Your task to perform on an android device: What's the news about the US dollar exchange rate? Image 0: 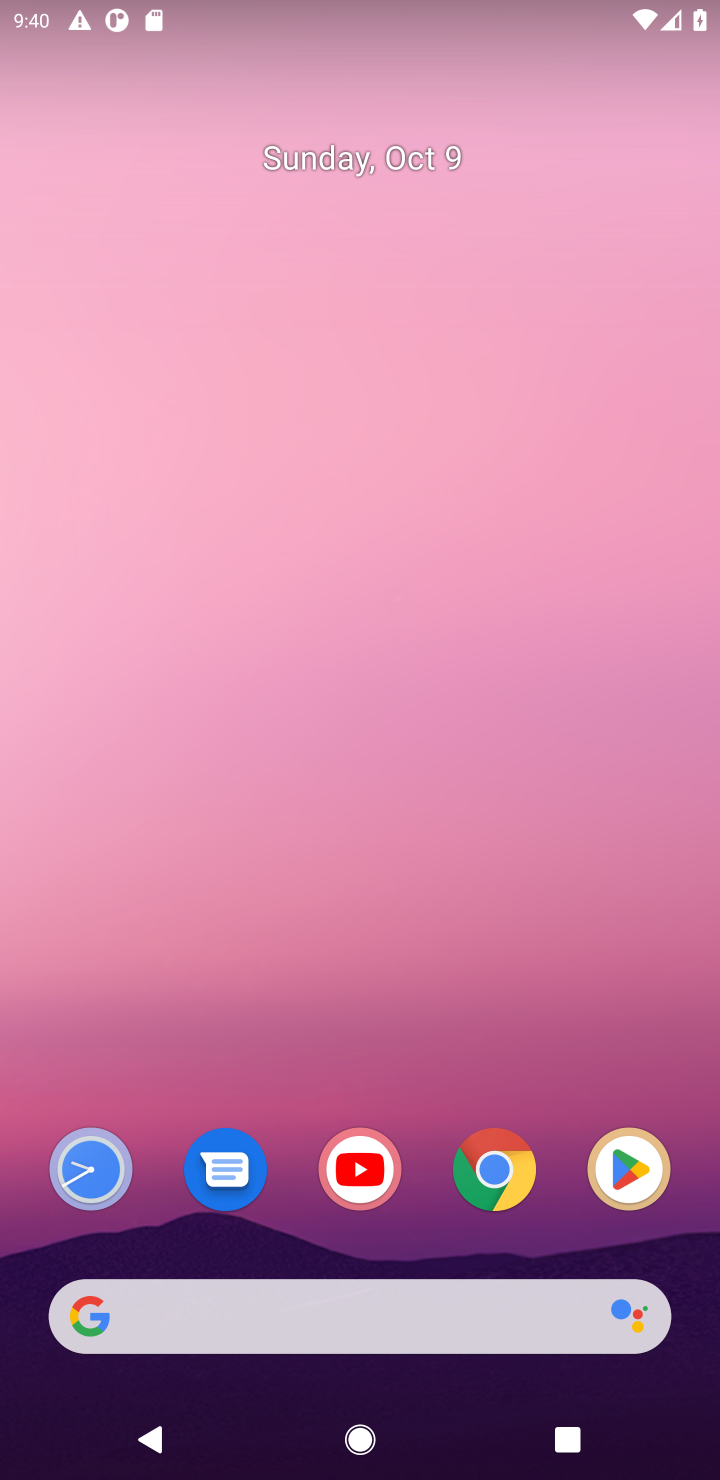
Step 0: click (529, 12)
Your task to perform on an android device: What's the news about the US dollar exchange rate? Image 1: 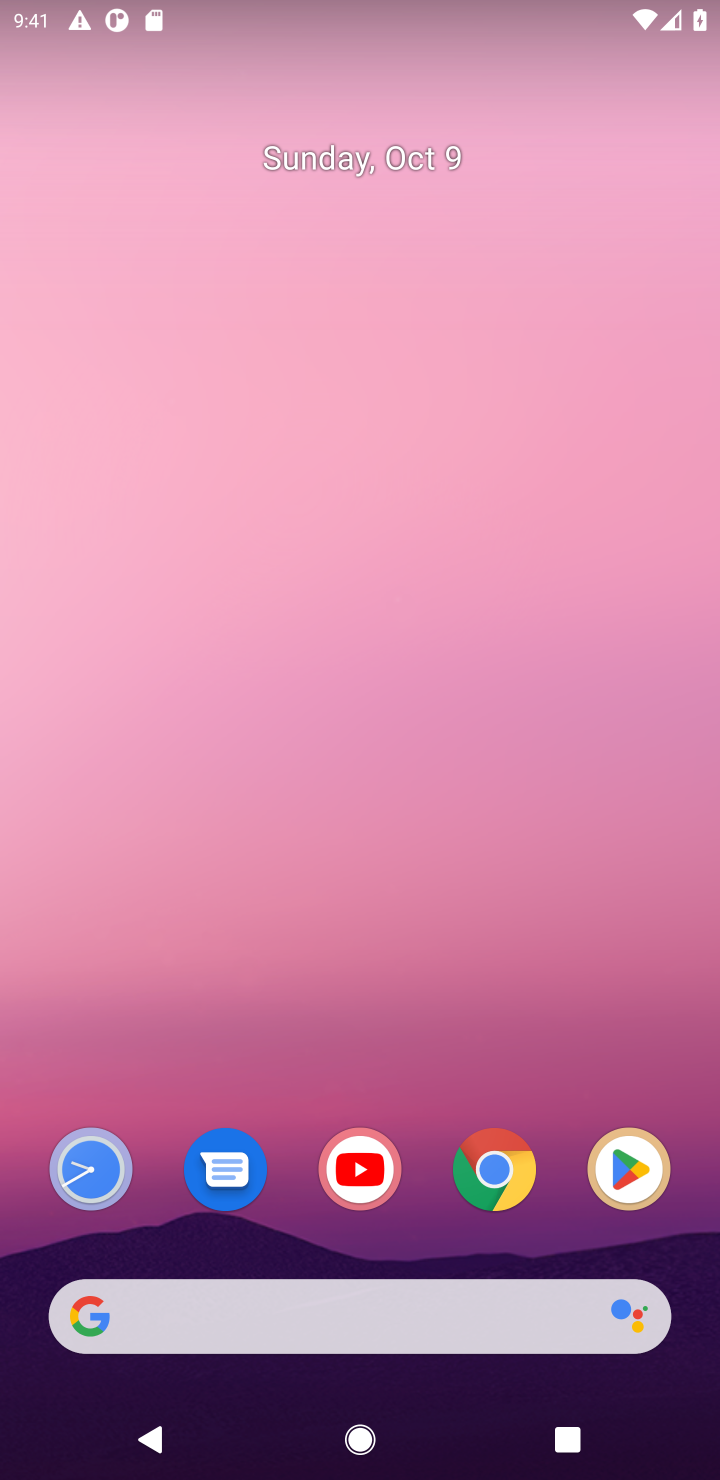
Step 1: click (280, 1310)
Your task to perform on an android device: What's the news about the US dollar exchange rate? Image 2: 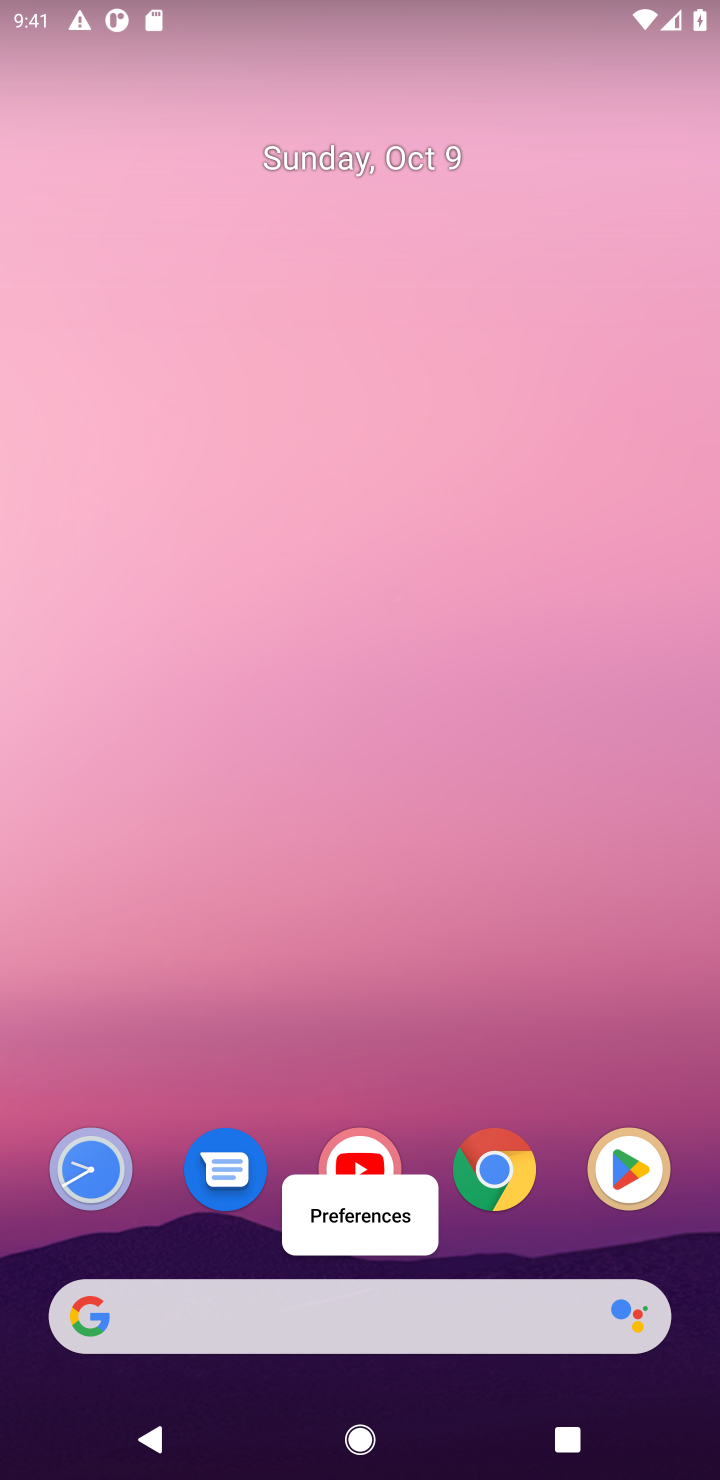
Step 2: click (270, 1325)
Your task to perform on an android device: What's the news about the US dollar exchange rate? Image 3: 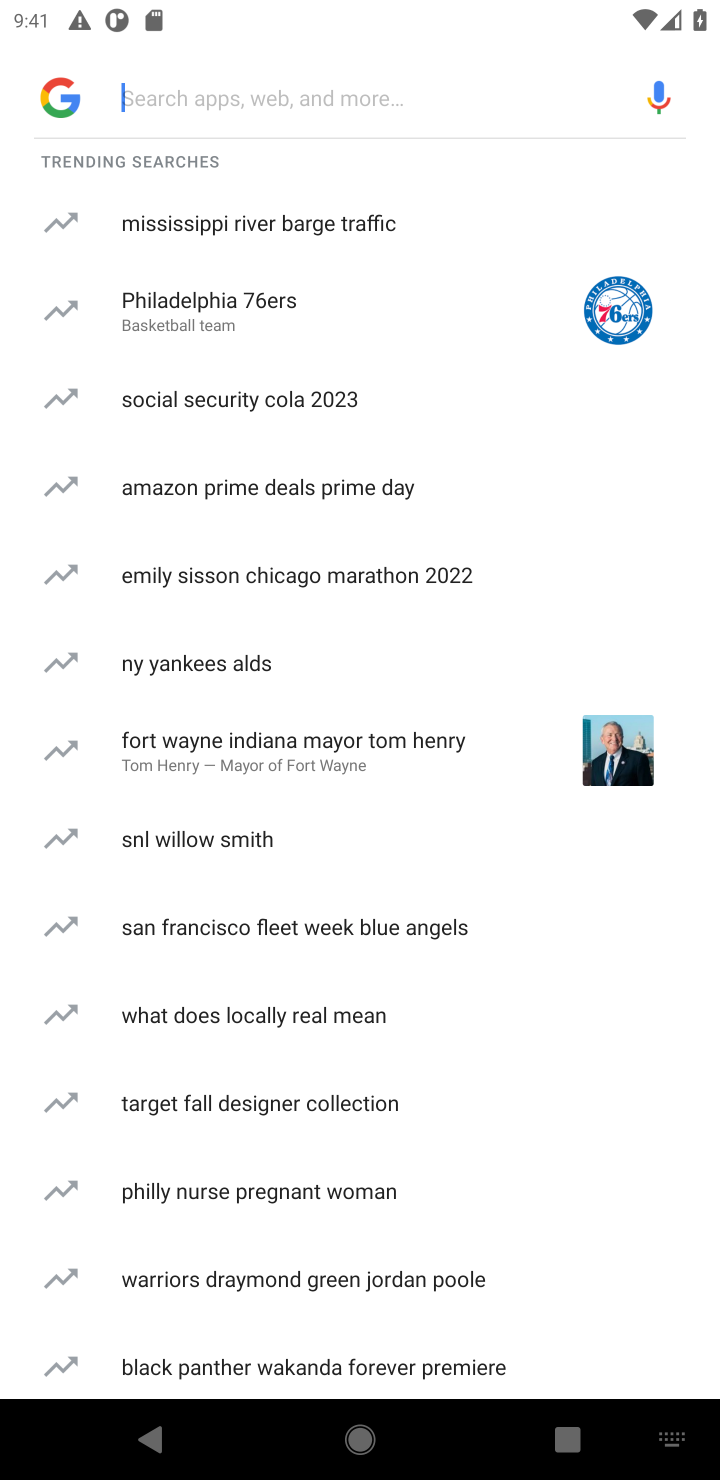
Step 3: click (283, 117)
Your task to perform on an android device: What's the news about the US dollar exchange rate? Image 4: 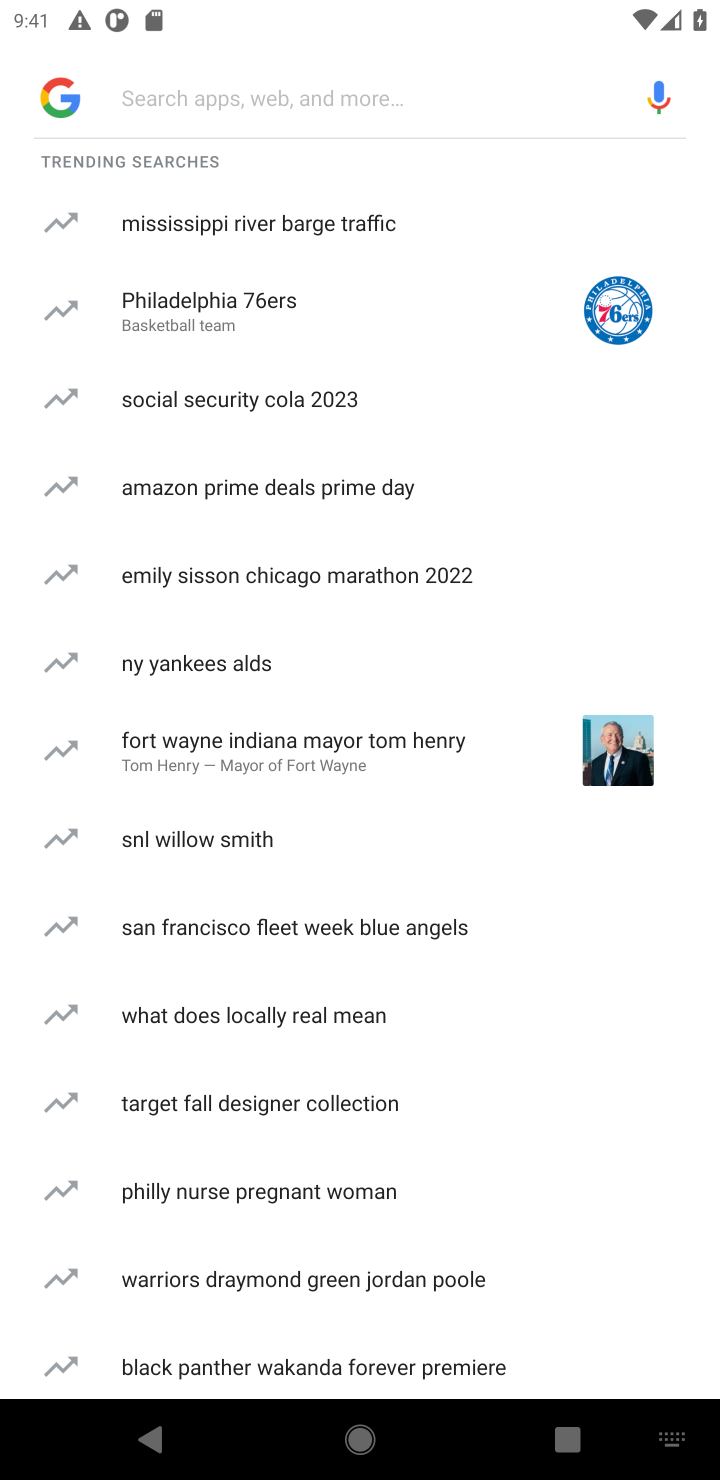
Step 4: type "What's the news about the US dollar exchange rate"
Your task to perform on an android device: What's the news about the US dollar exchange rate? Image 5: 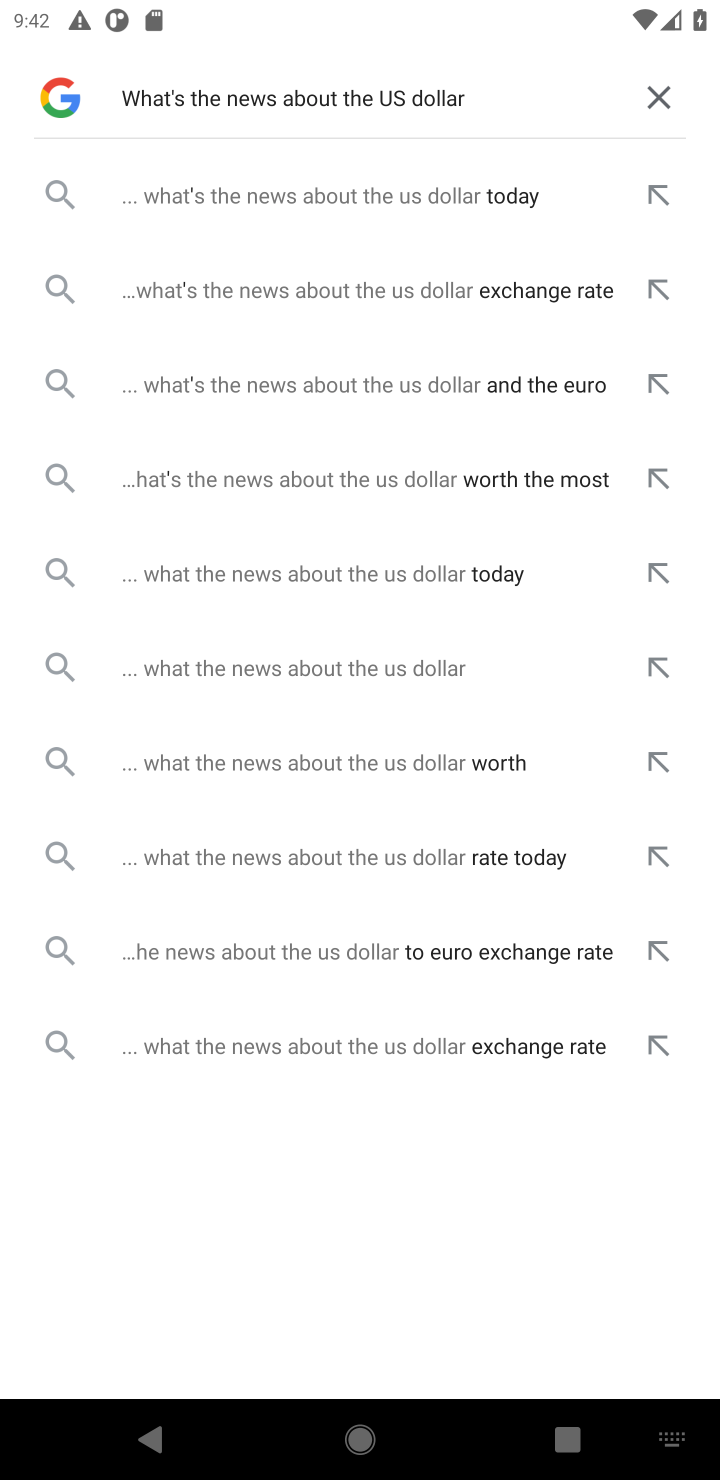
Step 5: click (315, 300)
Your task to perform on an android device: What's the news about the US dollar exchange rate? Image 6: 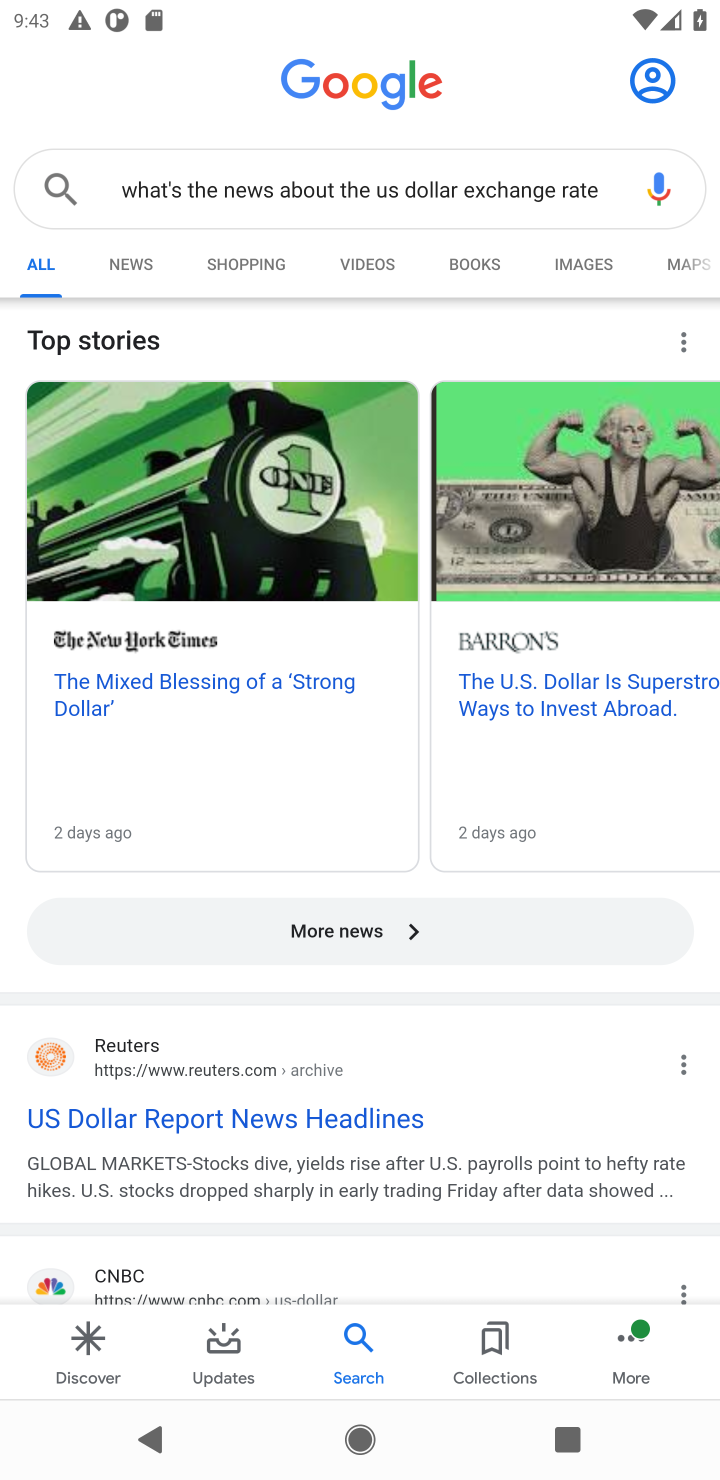
Step 6: task complete